Your task to perform on an android device: toggle show notifications on the lock screen Image 0: 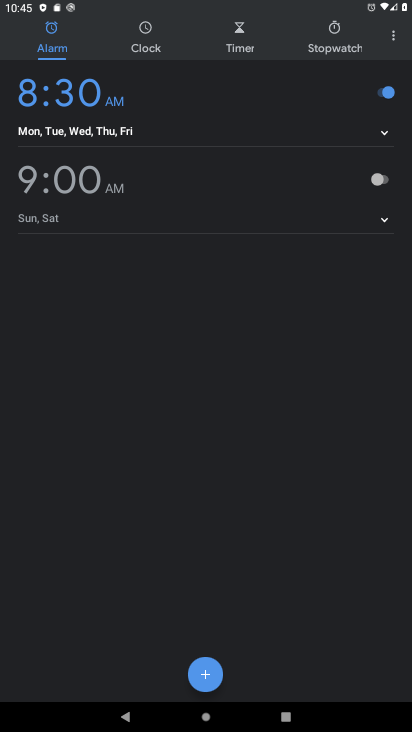
Step 0: press back button
Your task to perform on an android device: toggle show notifications on the lock screen Image 1: 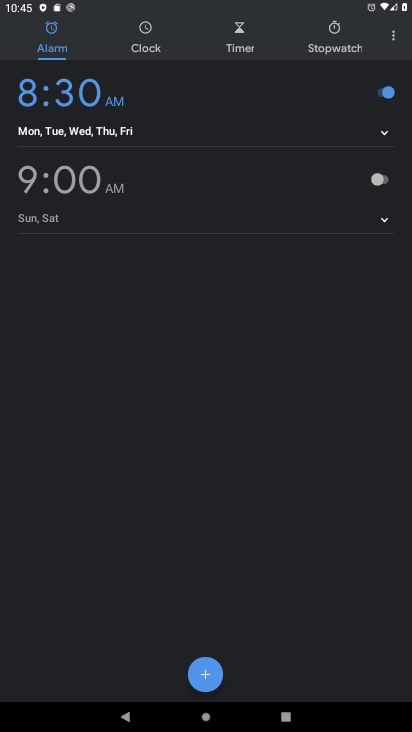
Step 1: press back button
Your task to perform on an android device: toggle show notifications on the lock screen Image 2: 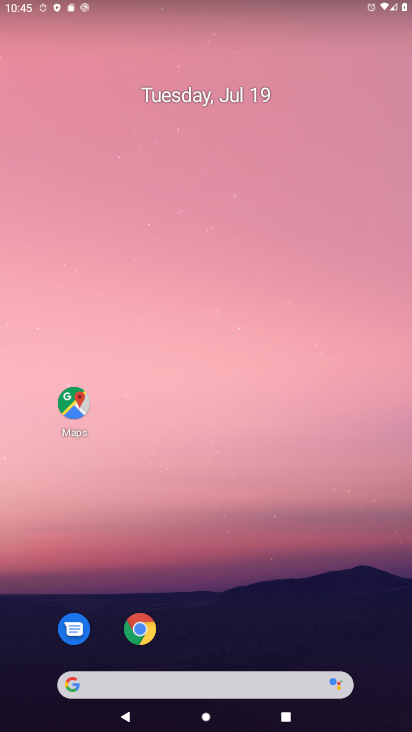
Step 2: drag from (256, 664) to (160, 209)
Your task to perform on an android device: toggle show notifications on the lock screen Image 3: 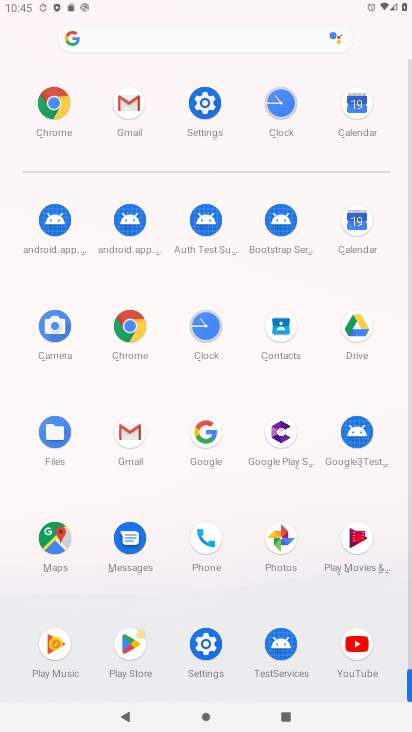
Step 3: click (270, 102)
Your task to perform on an android device: toggle show notifications on the lock screen Image 4: 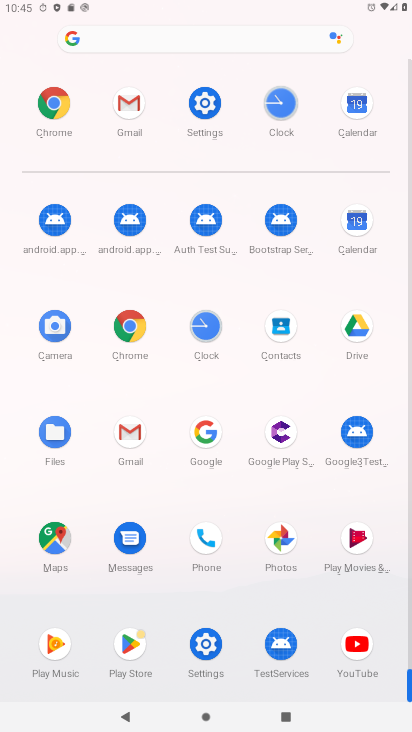
Step 4: click (270, 102)
Your task to perform on an android device: toggle show notifications on the lock screen Image 5: 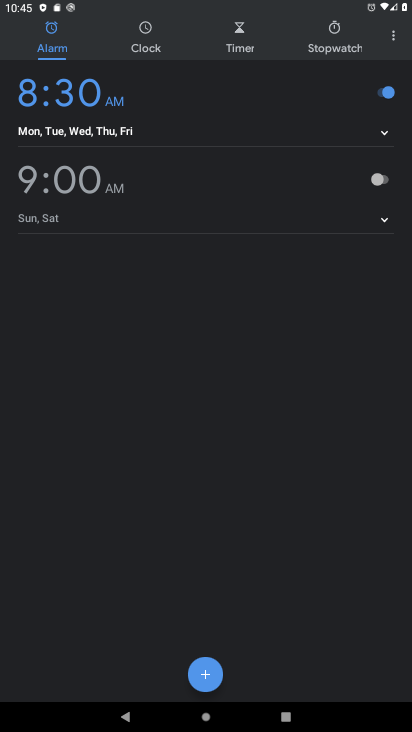
Step 5: press back button
Your task to perform on an android device: toggle show notifications on the lock screen Image 6: 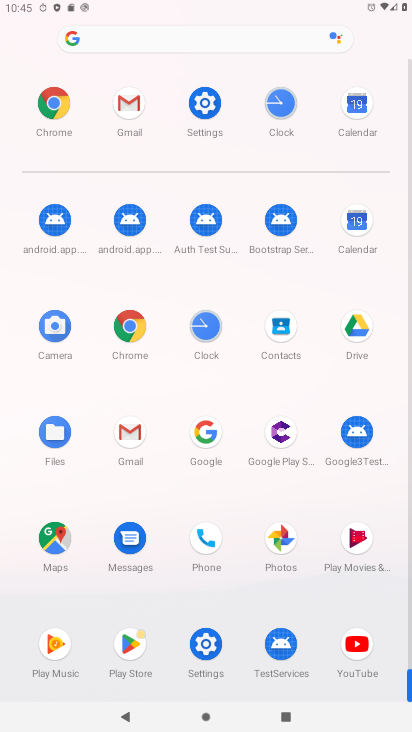
Step 6: click (202, 647)
Your task to perform on an android device: toggle show notifications on the lock screen Image 7: 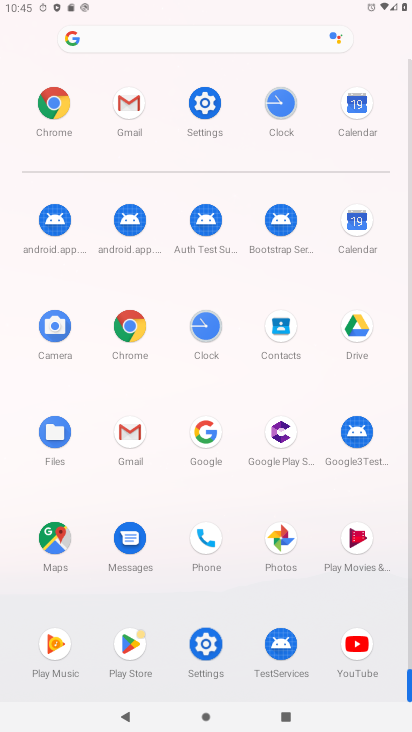
Step 7: click (204, 640)
Your task to perform on an android device: toggle show notifications on the lock screen Image 8: 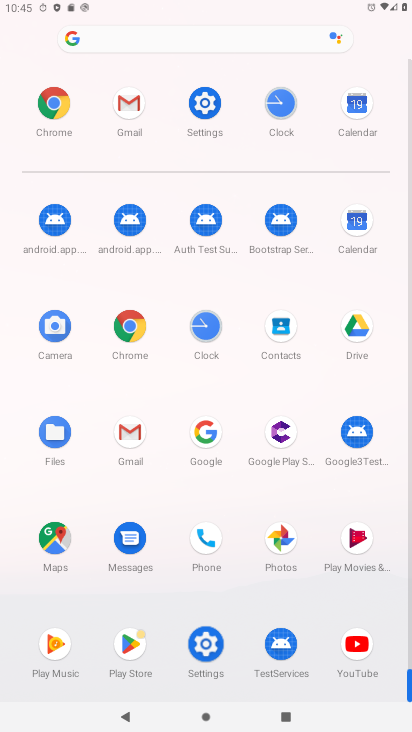
Step 8: click (204, 641)
Your task to perform on an android device: toggle show notifications on the lock screen Image 9: 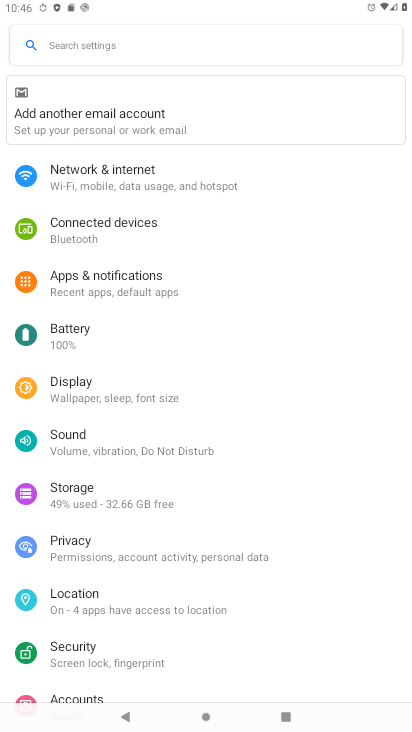
Step 9: click (107, 282)
Your task to perform on an android device: toggle show notifications on the lock screen Image 10: 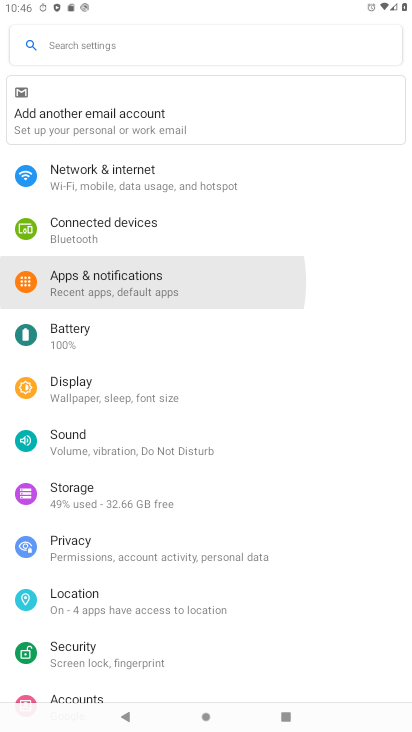
Step 10: click (107, 282)
Your task to perform on an android device: toggle show notifications on the lock screen Image 11: 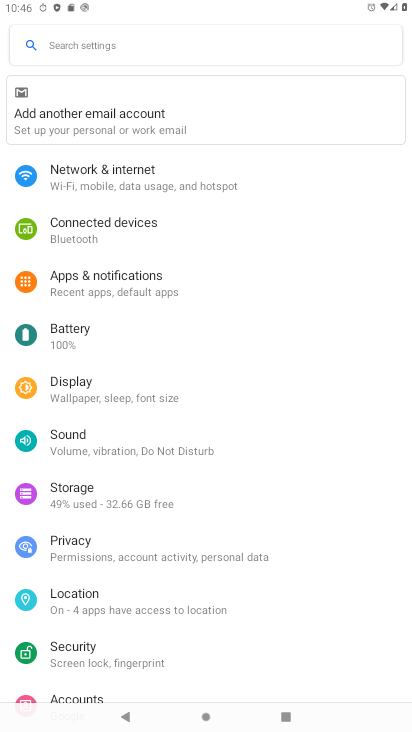
Step 11: click (108, 281)
Your task to perform on an android device: toggle show notifications on the lock screen Image 12: 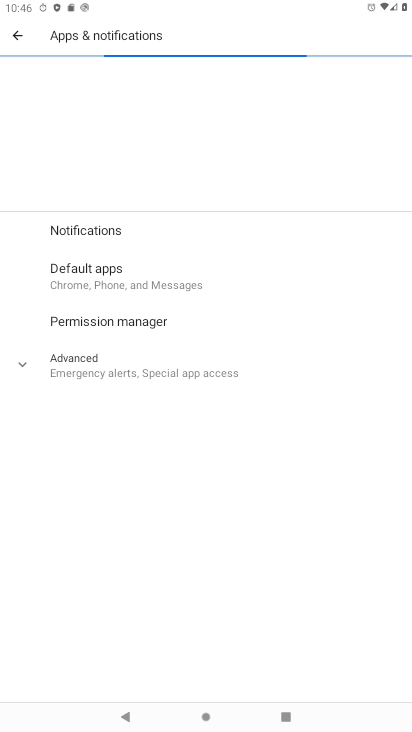
Step 12: click (112, 281)
Your task to perform on an android device: toggle show notifications on the lock screen Image 13: 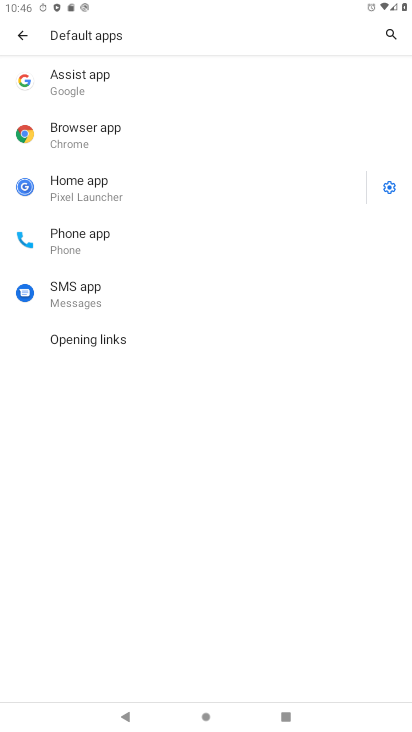
Step 13: click (80, 231)
Your task to perform on an android device: toggle show notifications on the lock screen Image 14: 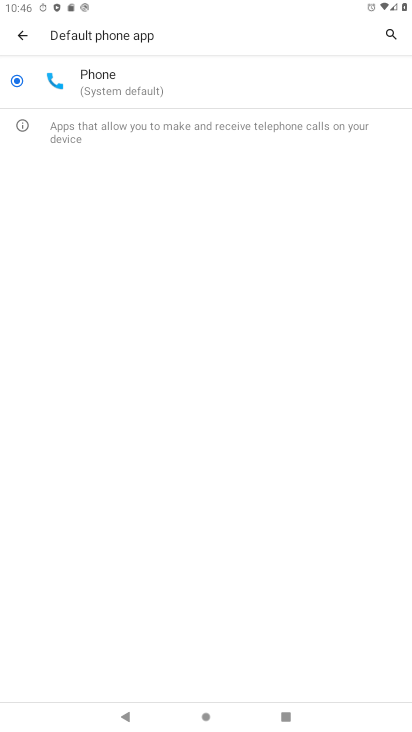
Step 14: click (26, 22)
Your task to perform on an android device: toggle show notifications on the lock screen Image 15: 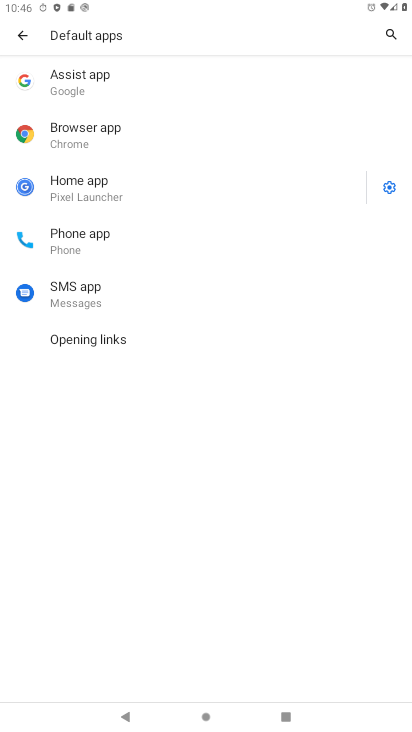
Step 15: click (25, 32)
Your task to perform on an android device: toggle show notifications on the lock screen Image 16: 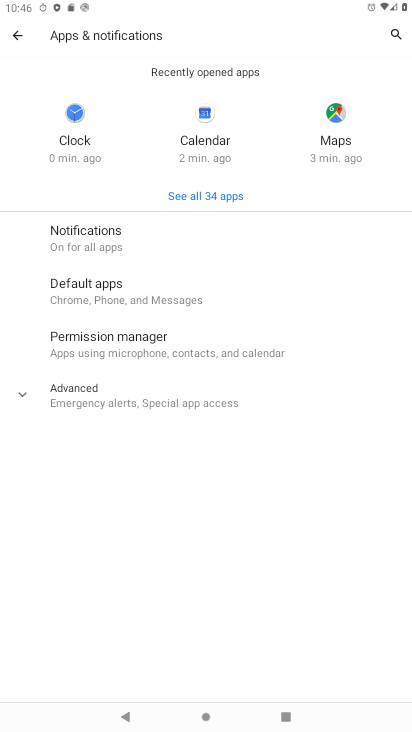
Step 16: click (74, 238)
Your task to perform on an android device: toggle show notifications on the lock screen Image 17: 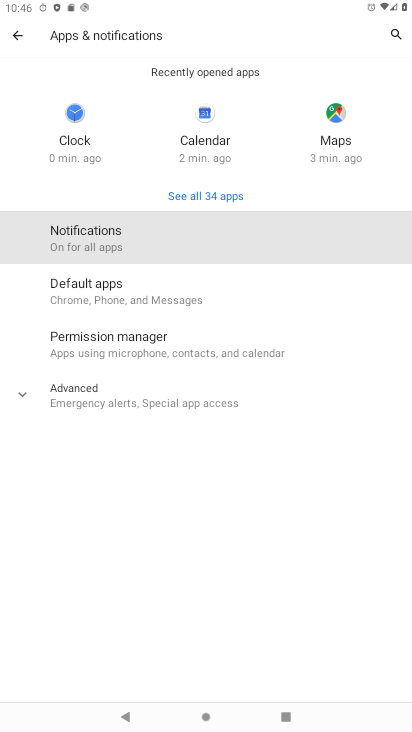
Step 17: click (81, 239)
Your task to perform on an android device: toggle show notifications on the lock screen Image 18: 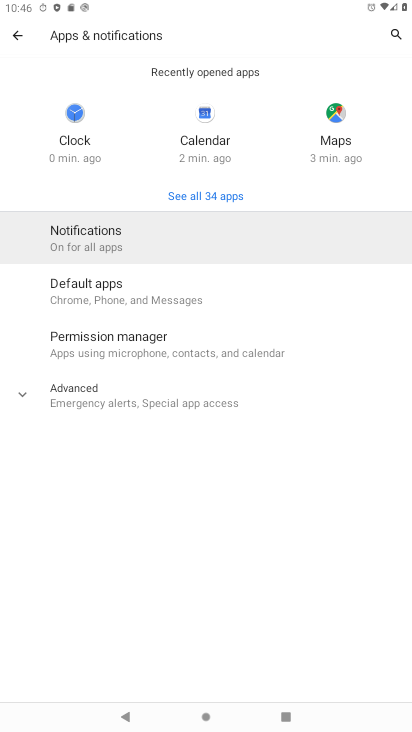
Step 18: click (82, 239)
Your task to perform on an android device: toggle show notifications on the lock screen Image 19: 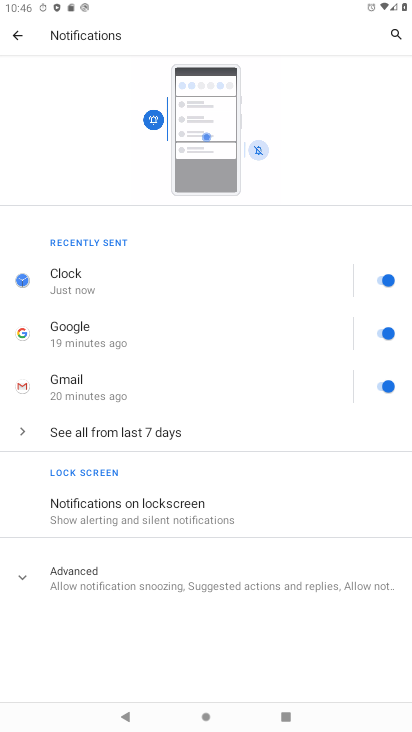
Step 19: click (125, 499)
Your task to perform on an android device: toggle show notifications on the lock screen Image 20: 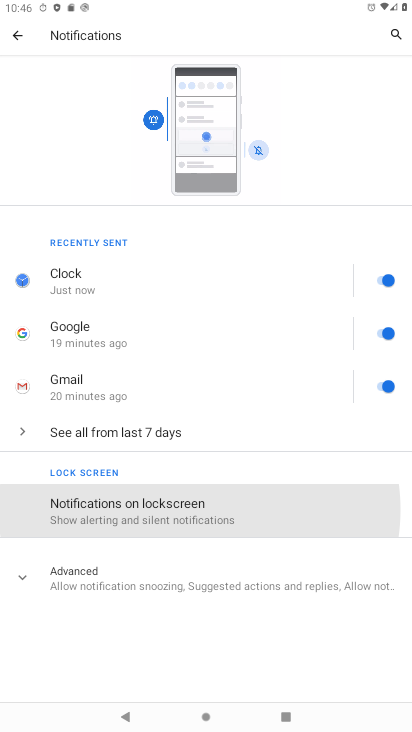
Step 20: click (125, 498)
Your task to perform on an android device: toggle show notifications on the lock screen Image 21: 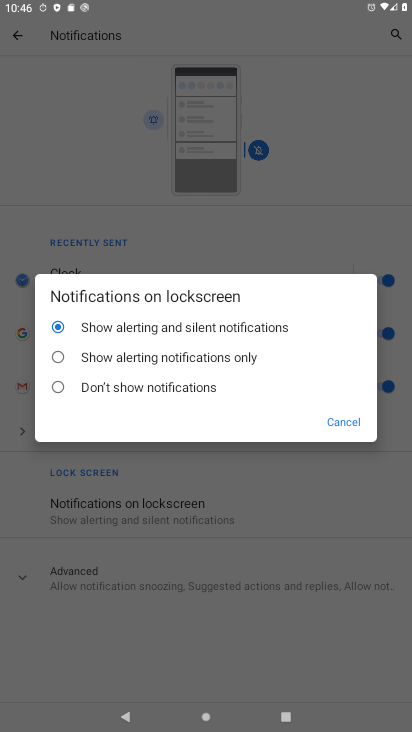
Step 21: click (55, 355)
Your task to perform on an android device: toggle show notifications on the lock screen Image 22: 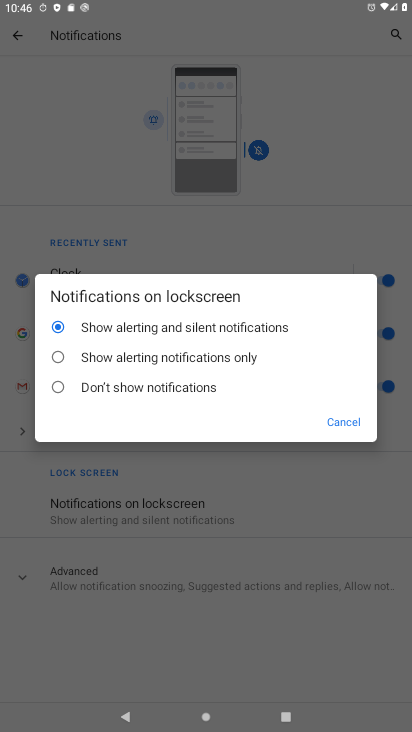
Step 22: click (55, 355)
Your task to perform on an android device: toggle show notifications on the lock screen Image 23: 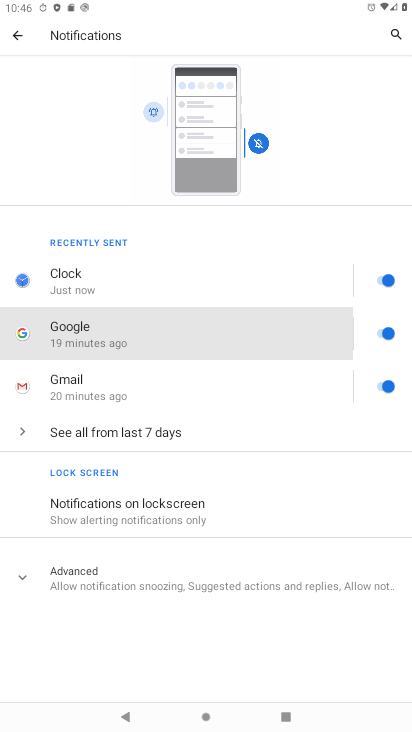
Step 23: click (57, 356)
Your task to perform on an android device: toggle show notifications on the lock screen Image 24: 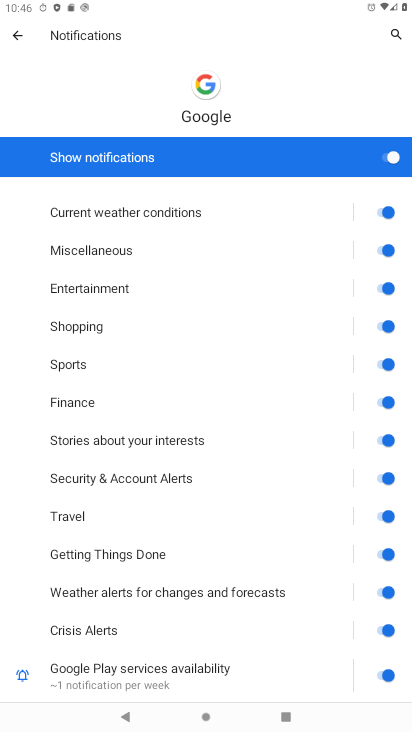
Step 24: task complete